Your task to perform on an android device: Open settings on Google Maps Image 0: 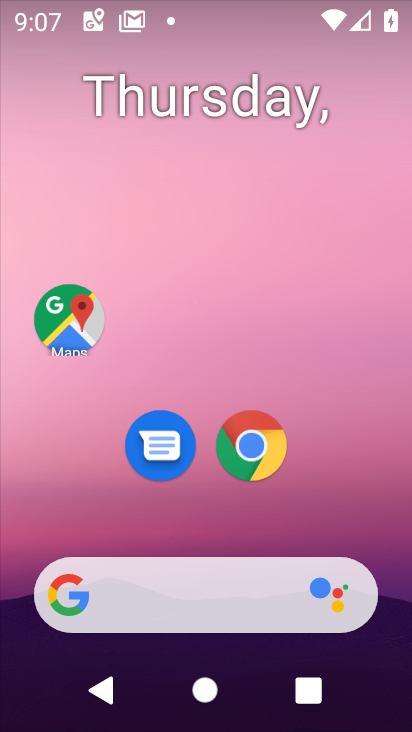
Step 0: drag from (324, 366) to (265, 130)
Your task to perform on an android device: Open settings on Google Maps Image 1: 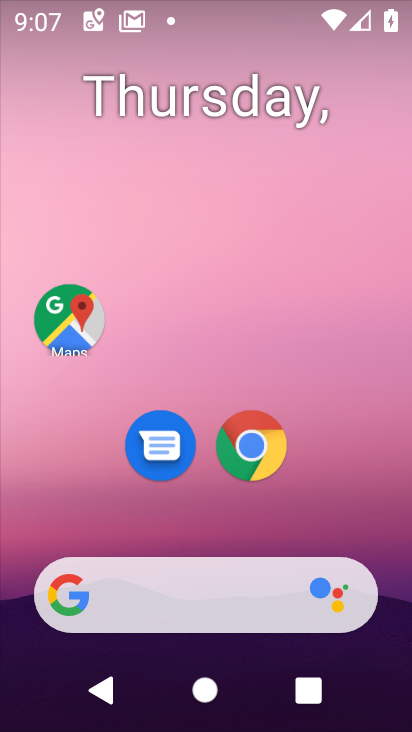
Step 1: click (53, 337)
Your task to perform on an android device: Open settings on Google Maps Image 2: 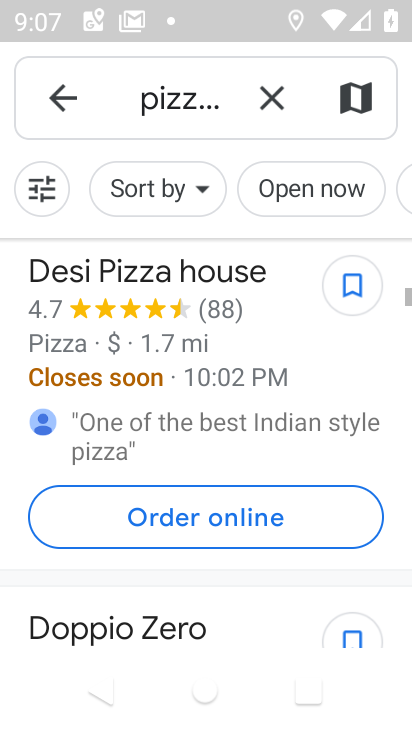
Step 2: click (64, 97)
Your task to perform on an android device: Open settings on Google Maps Image 3: 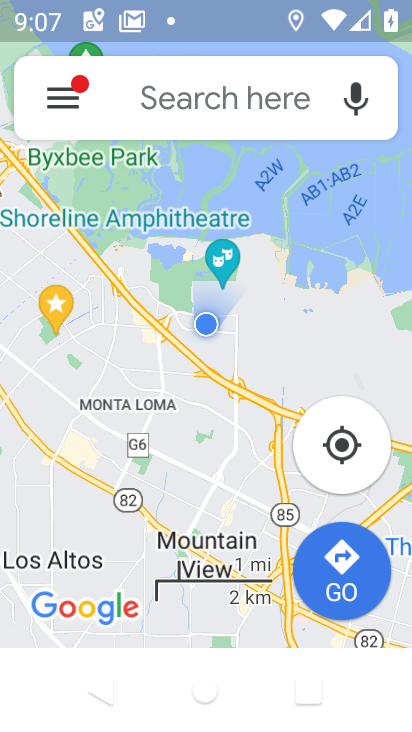
Step 3: click (63, 97)
Your task to perform on an android device: Open settings on Google Maps Image 4: 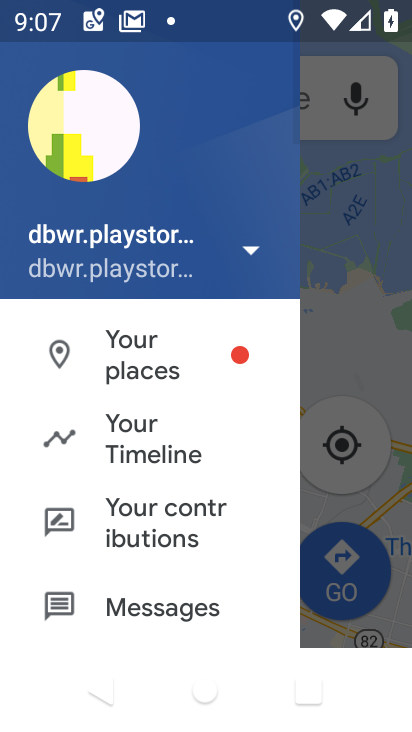
Step 4: drag from (165, 568) to (231, 178)
Your task to perform on an android device: Open settings on Google Maps Image 5: 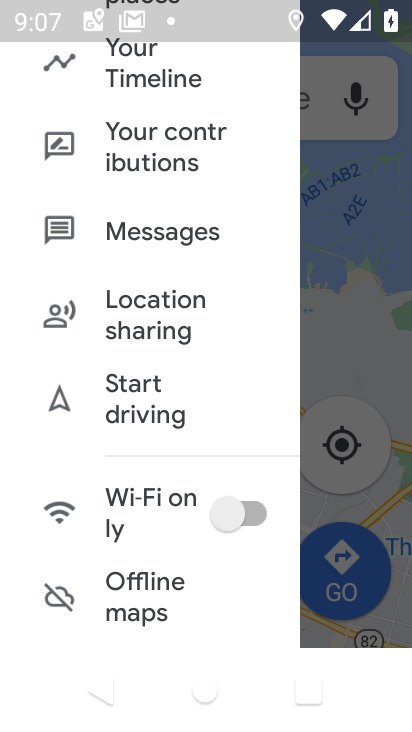
Step 5: drag from (182, 587) to (217, 295)
Your task to perform on an android device: Open settings on Google Maps Image 6: 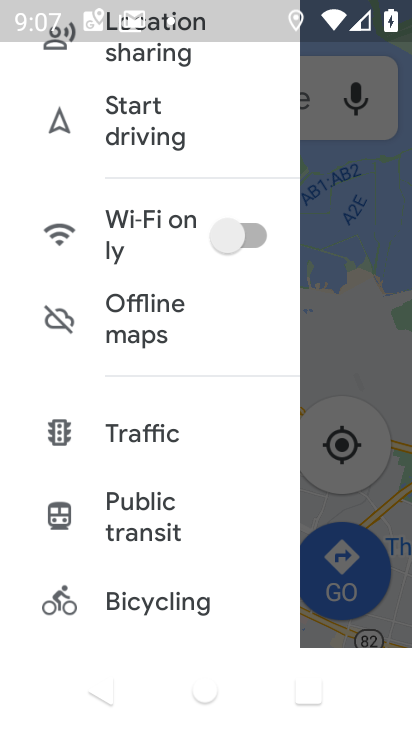
Step 6: drag from (202, 366) to (173, 643)
Your task to perform on an android device: Open settings on Google Maps Image 7: 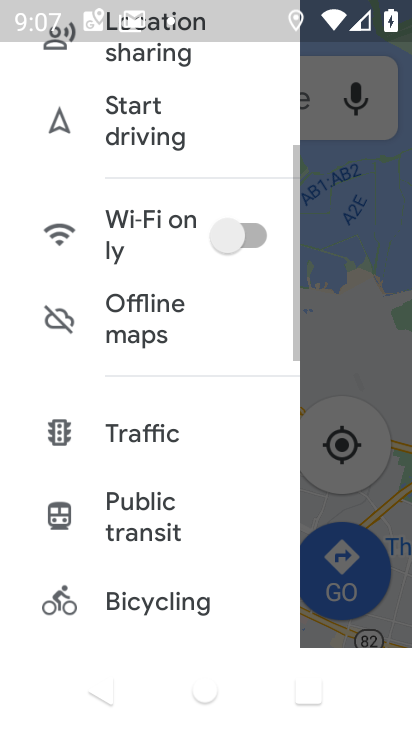
Step 7: drag from (237, 511) to (237, 274)
Your task to perform on an android device: Open settings on Google Maps Image 8: 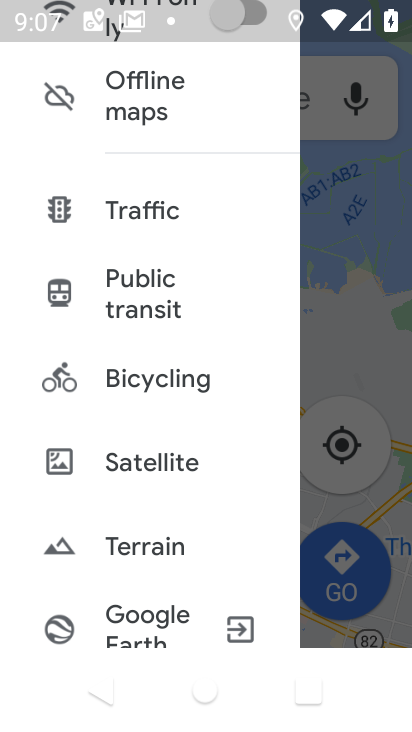
Step 8: drag from (181, 523) to (180, 216)
Your task to perform on an android device: Open settings on Google Maps Image 9: 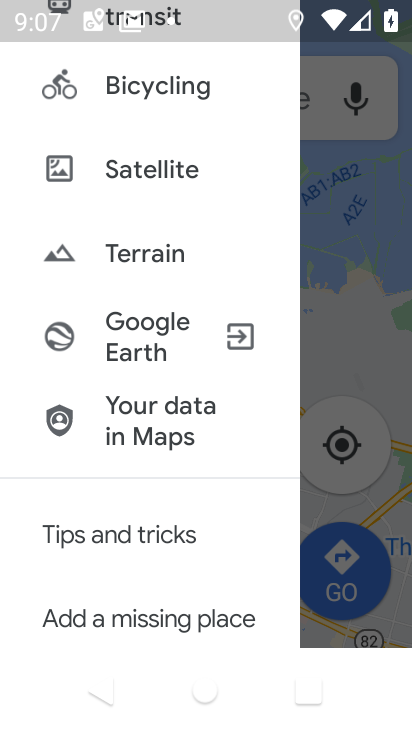
Step 9: drag from (144, 556) to (192, 225)
Your task to perform on an android device: Open settings on Google Maps Image 10: 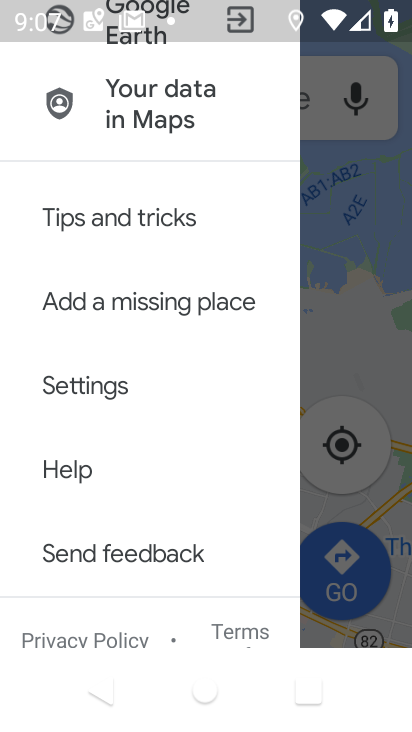
Step 10: click (83, 367)
Your task to perform on an android device: Open settings on Google Maps Image 11: 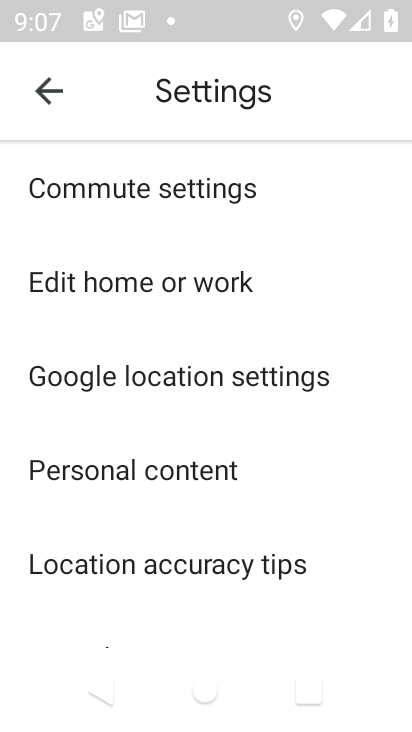
Step 11: task complete